Your task to perform on an android device: Open Youtube and go to "Your channel" Image 0: 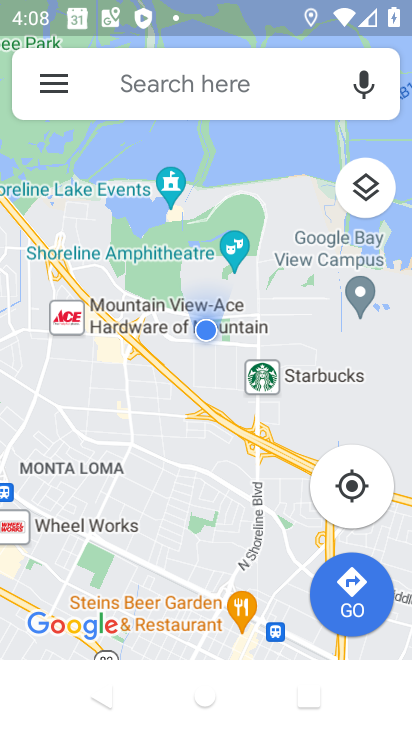
Step 0: press back button
Your task to perform on an android device: Open Youtube and go to "Your channel" Image 1: 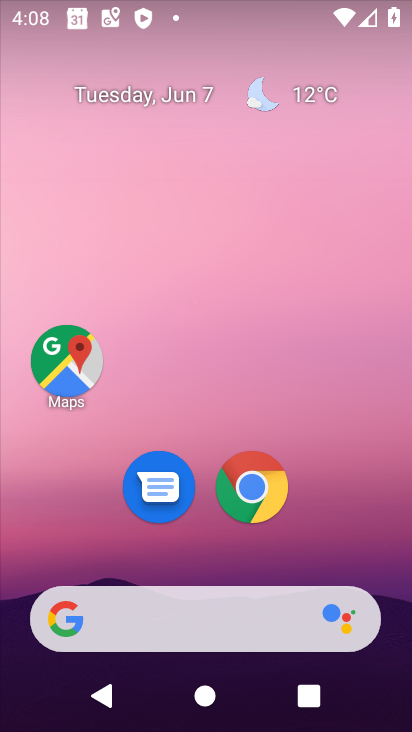
Step 1: drag from (181, 562) to (190, 76)
Your task to perform on an android device: Open Youtube and go to "Your channel" Image 2: 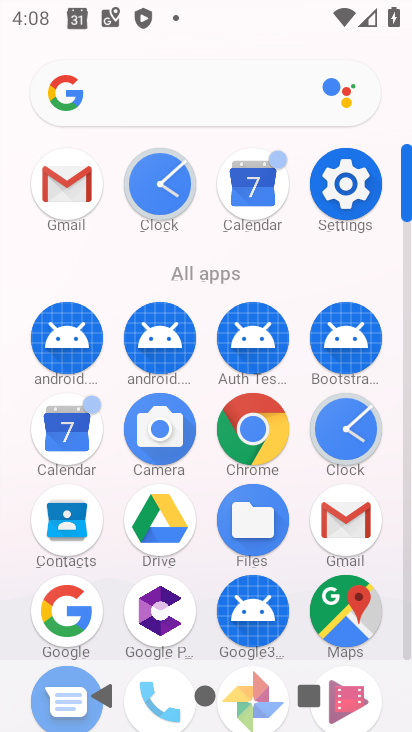
Step 2: drag from (195, 537) to (225, 54)
Your task to perform on an android device: Open Youtube and go to "Your channel" Image 3: 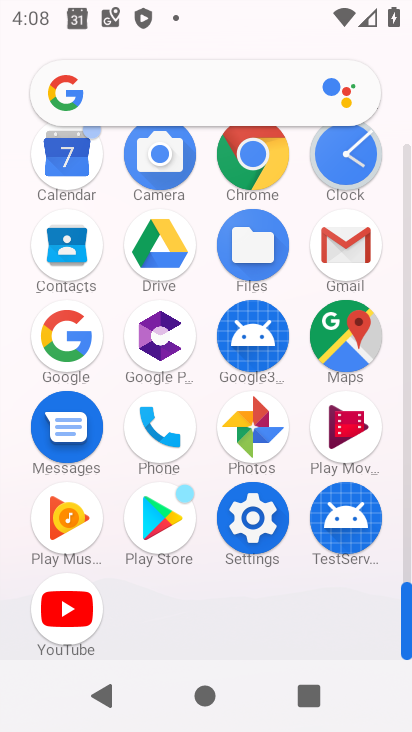
Step 3: click (75, 621)
Your task to perform on an android device: Open Youtube and go to "Your channel" Image 4: 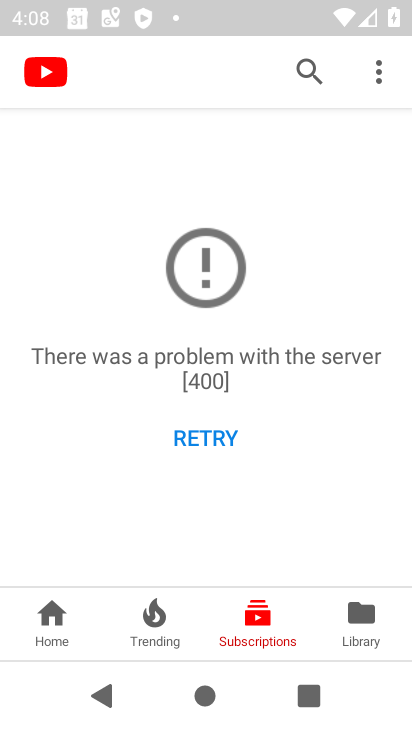
Step 4: task complete